Your task to perform on an android device: Go to Google maps Image 0: 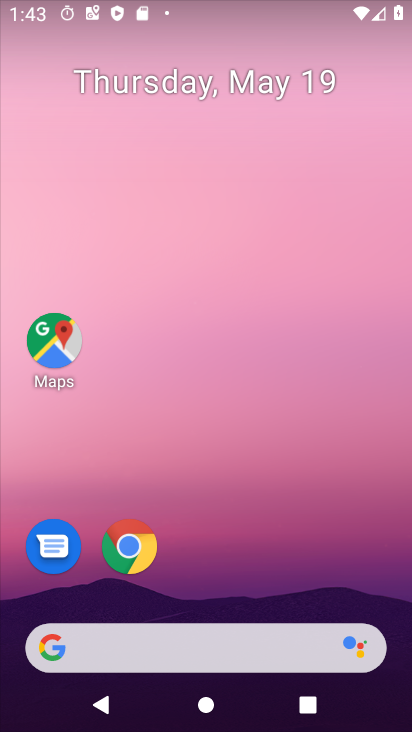
Step 0: click (71, 332)
Your task to perform on an android device: Go to Google maps Image 1: 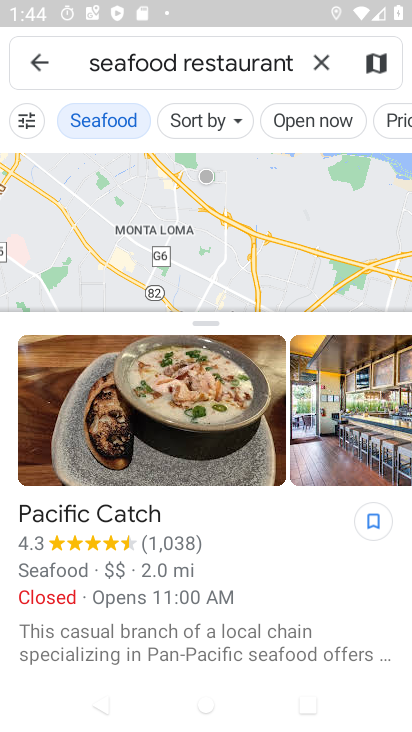
Step 1: task complete